Your task to perform on an android device: delete a single message in the gmail app Image 0: 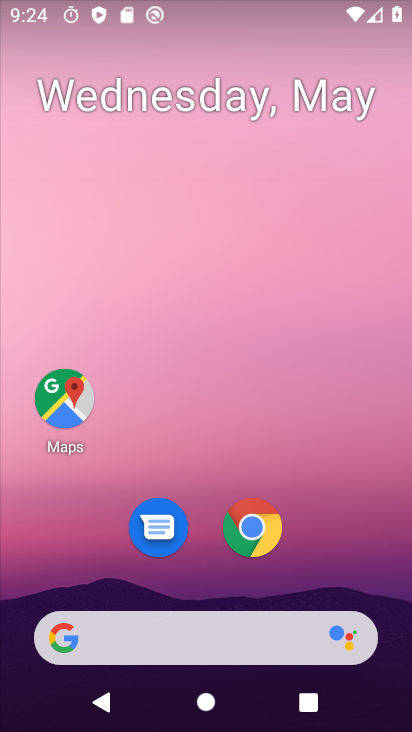
Step 0: drag from (321, 542) to (307, 52)
Your task to perform on an android device: delete a single message in the gmail app Image 1: 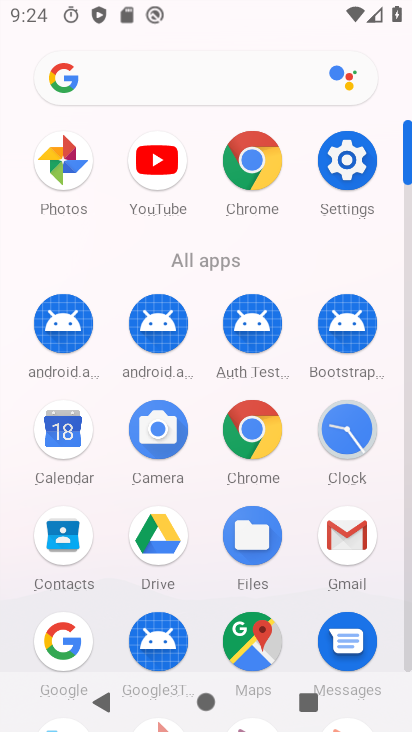
Step 1: click (349, 534)
Your task to perform on an android device: delete a single message in the gmail app Image 2: 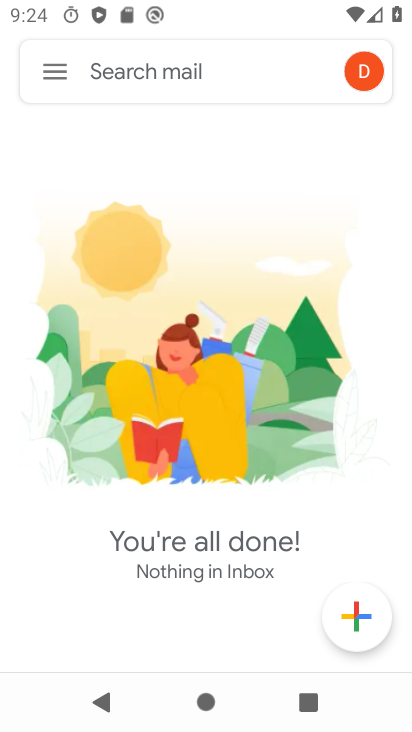
Step 2: task complete